Your task to perform on an android device: Open Google Image 0: 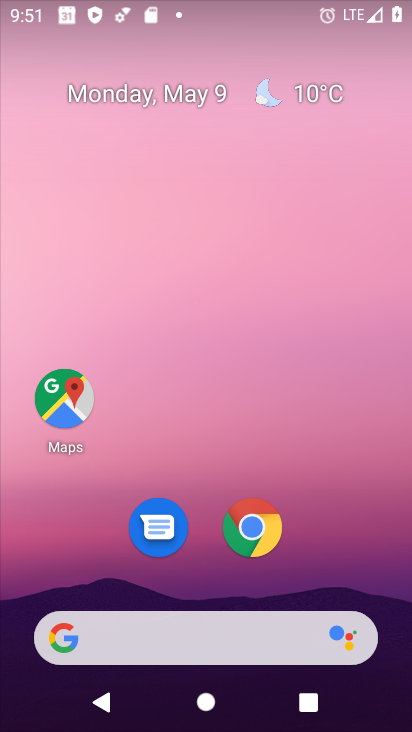
Step 0: click (250, 528)
Your task to perform on an android device: Open Google Image 1: 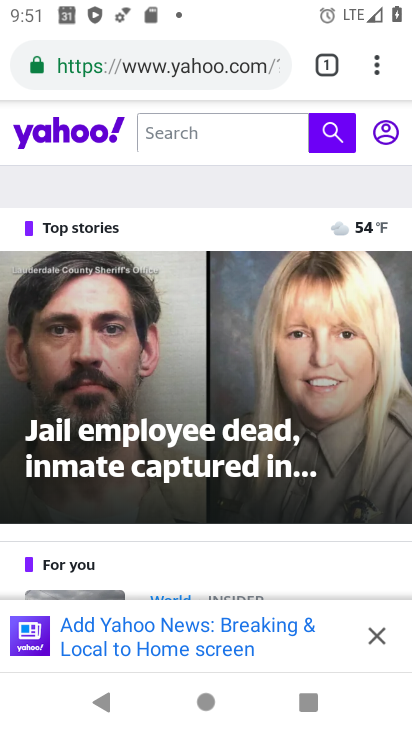
Step 1: click (376, 68)
Your task to perform on an android device: Open Google Image 2: 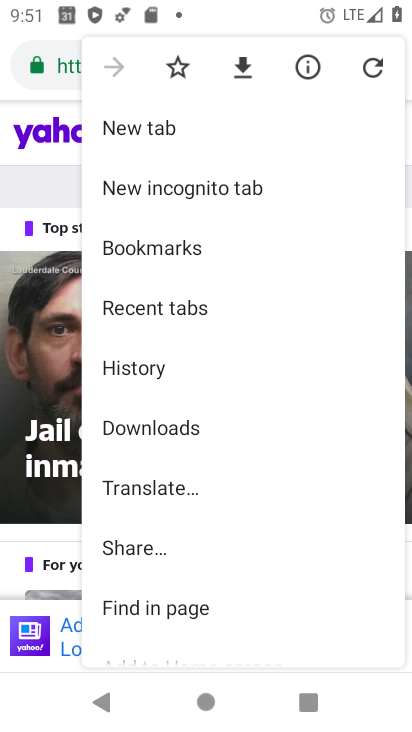
Step 2: task complete